Your task to perform on an android device: Open a new private window in Chrome Image 0: 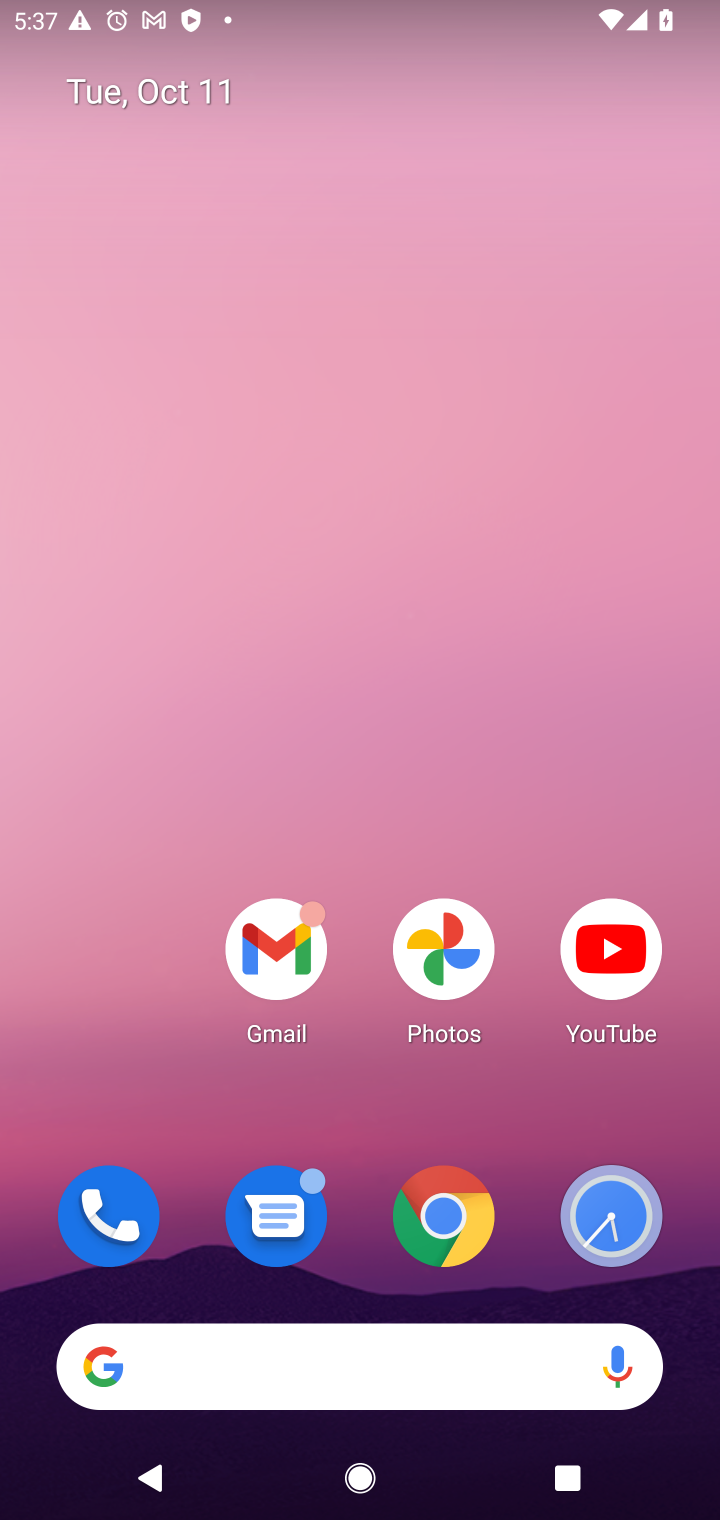
Step 0: click (413, 1192)
Your task to perform on an android device: Open a new private window in Chrome Image 1: 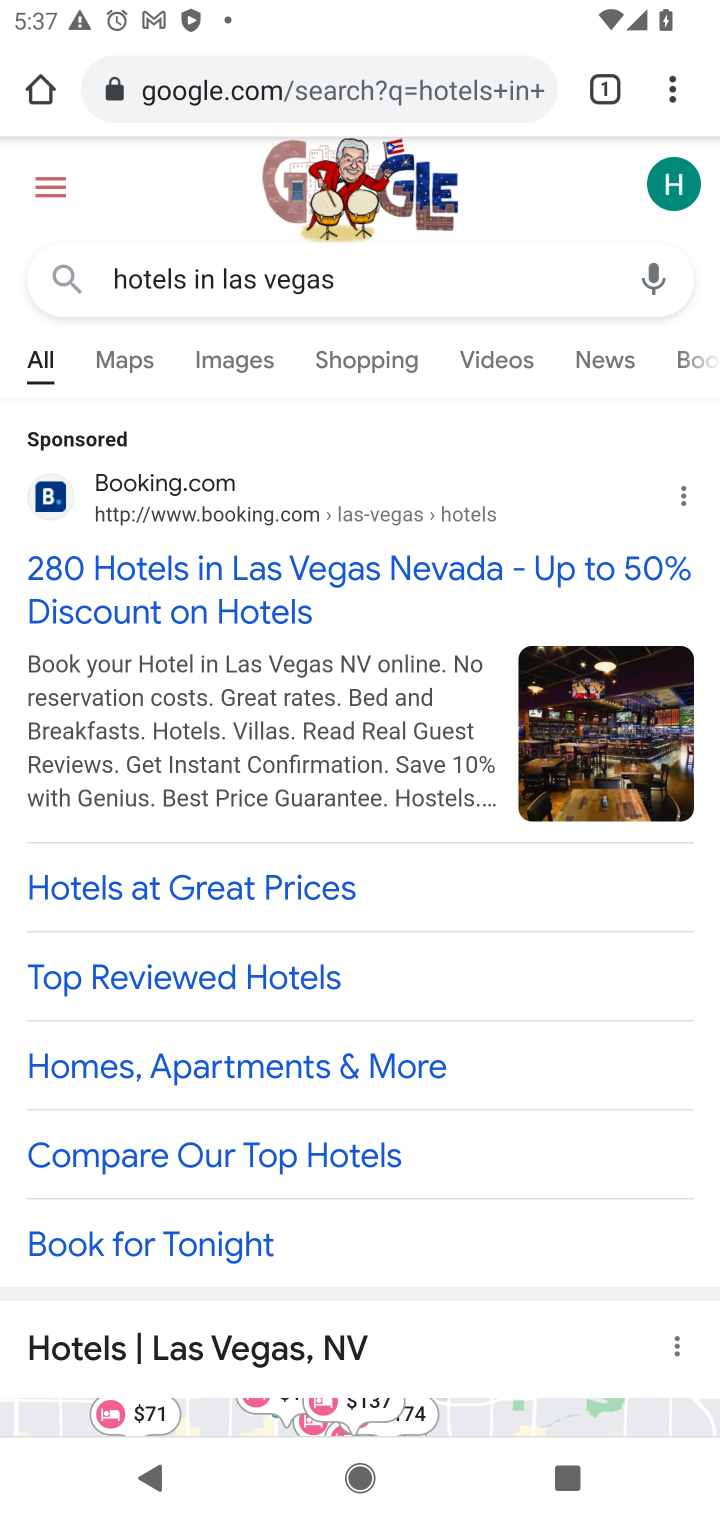
Step 1: click (663, 101)
Your task to perform on an android device: Open a new private window in Chrome Image 2: 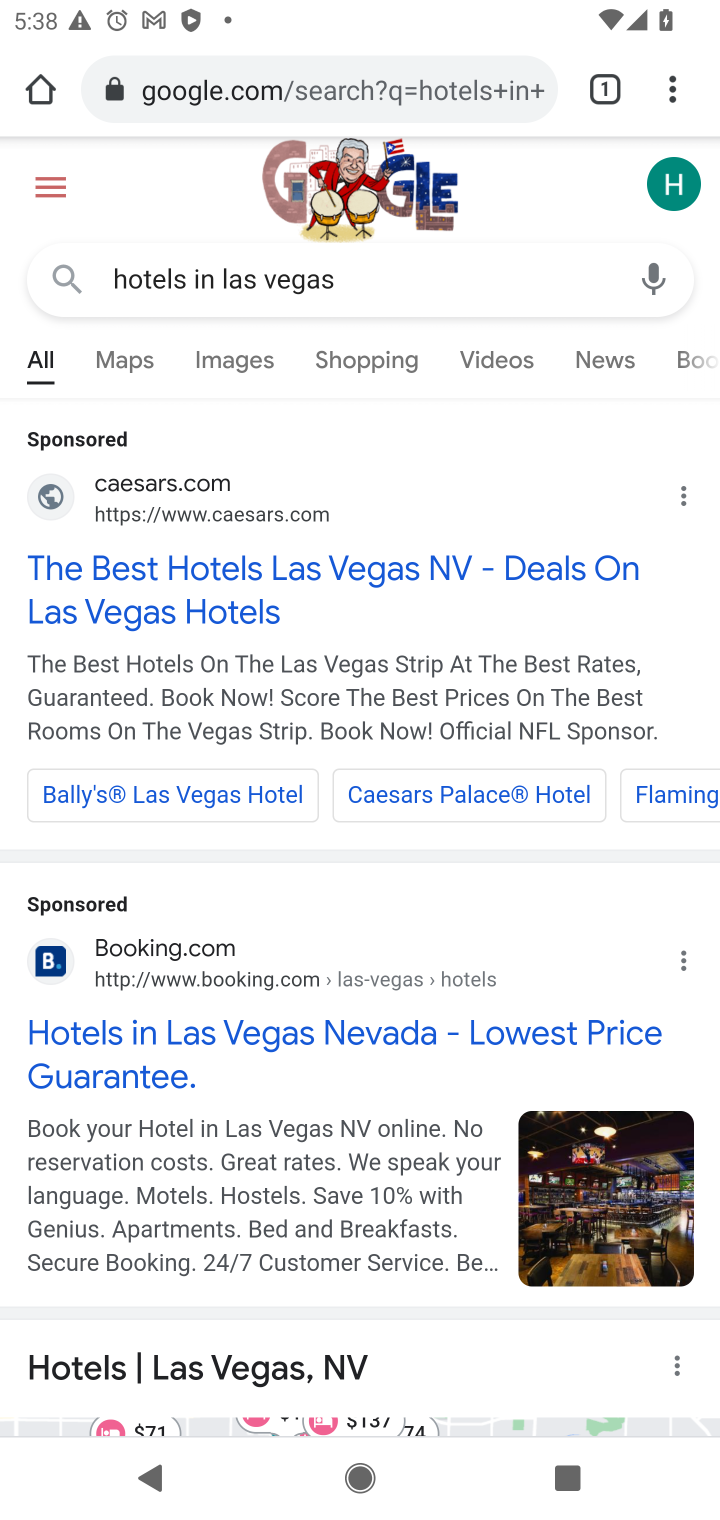
Step 2: task complete